Your task to perform on an android device: delete a single message in the gmail app Image 0: 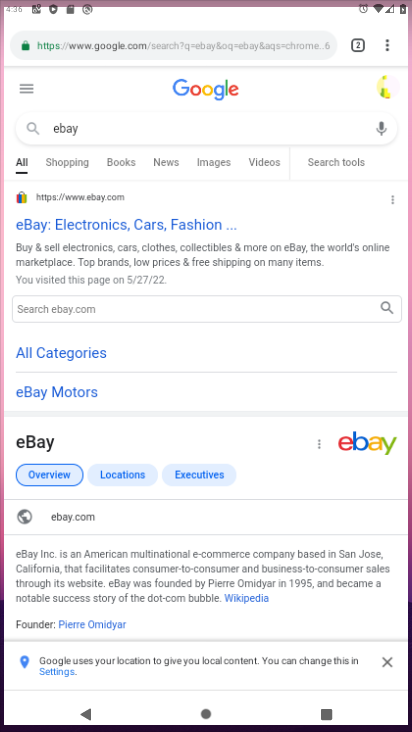
Step 0: drag from (176, 547) to (189, 209)
Your task to perform on an android device: delete a single message in the gmail app Image 1: 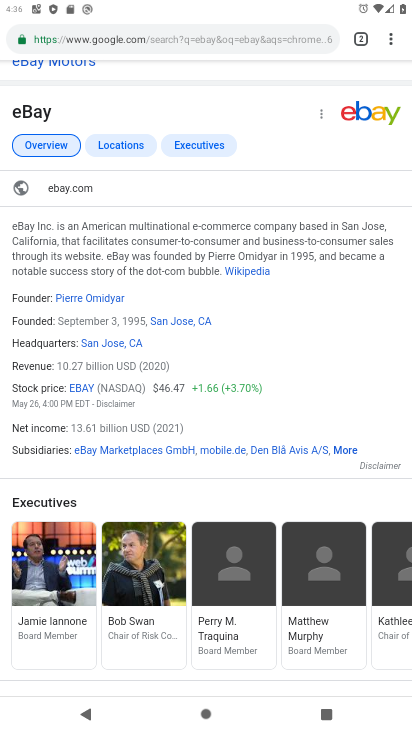
Step 1: press home button
Your task to perform on an android device: delete a single message in the gmail app Image 2: 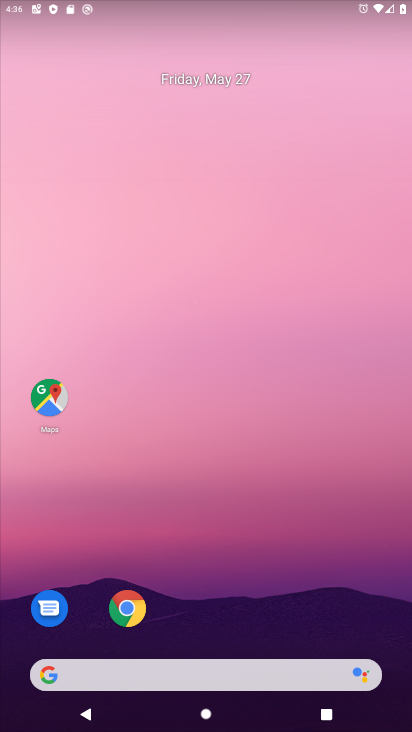
Step 2: drag from (179, 608) to (205, 285)
Your task to perform on an android device: delete a single message in the gmail app Image 3: 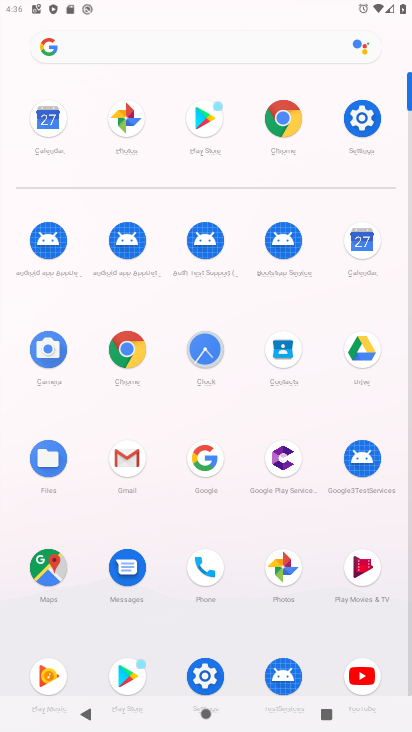
Step 3: click (126, 461)
Your task to perform on an android device: delete a single message in the gmail app Image 4: 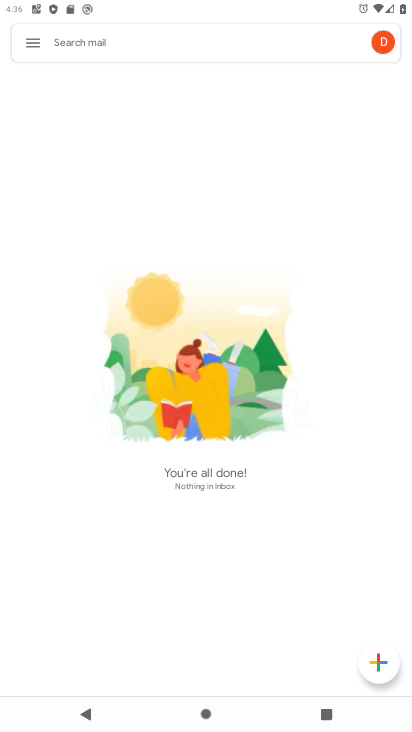
Step 4: task complete